Your task to perform on an android device: Go to Yahoo.com Image 0: 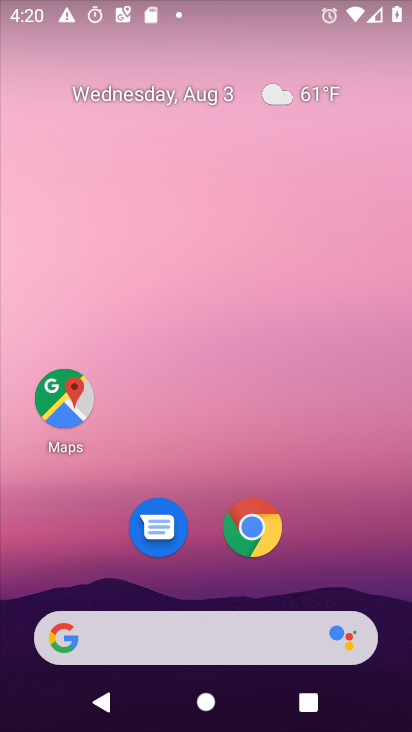
Step 0: click (256, 529)
Your task to perform on an android device: Go to Yahoo.com Image 1: 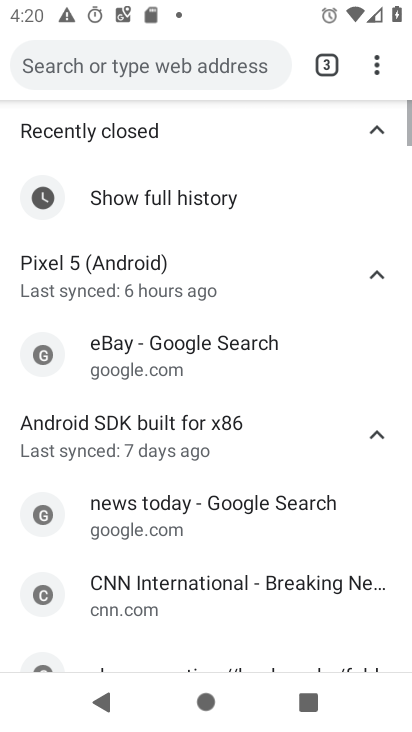
Step 1: click (232, 61)
Your task to perform on an android device: Go to Yahoo.com Image 2: 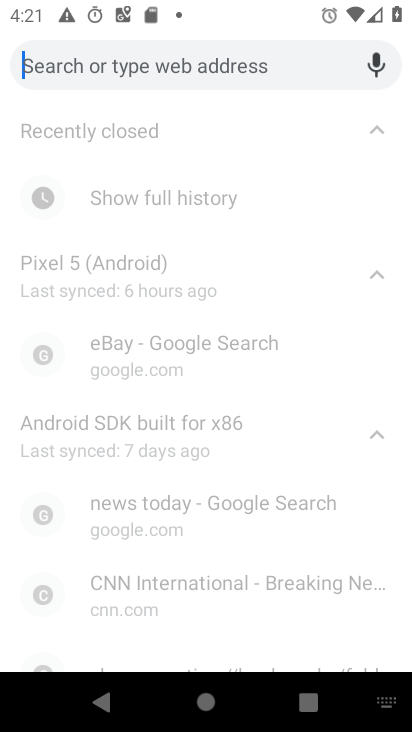
Step 2: type "yaho.com"
Your task to perform on an android device: Go to Yahoo.com Image 3: 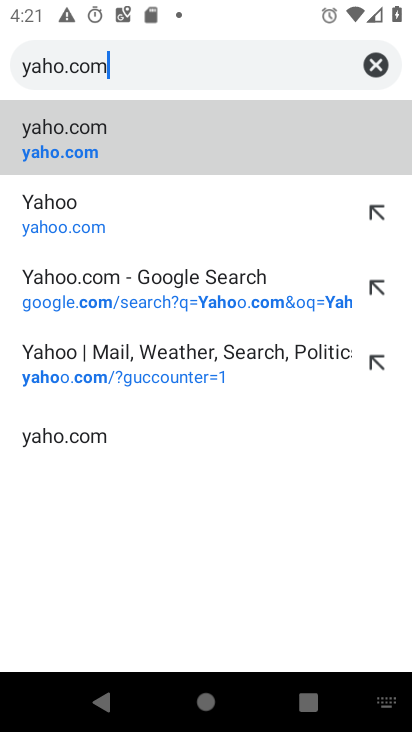
Step 3: click (55, 152)
Your task to perform on an android device: Go to Yahoo.com Image 4: 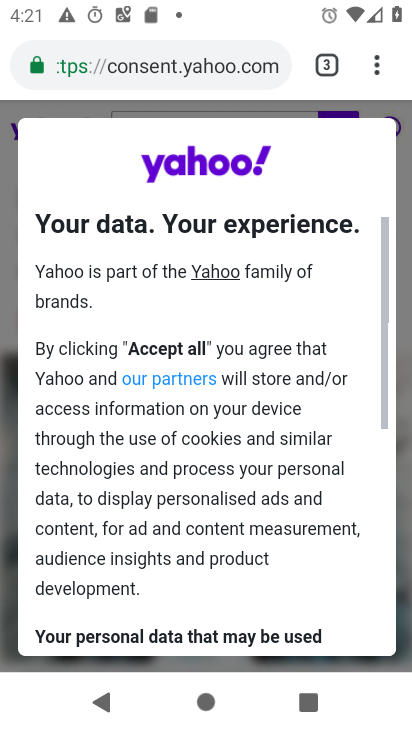
Step 4: task complete